Your task to perform on an android device: Go to ESPN.com Image 0: 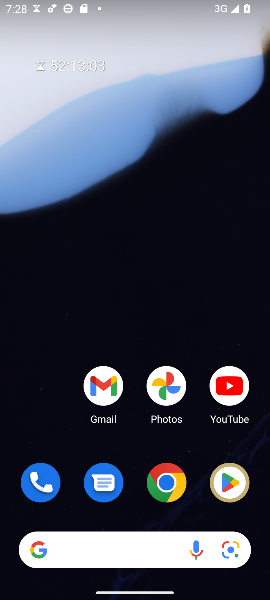
Step 0: drag from (83, 470) to (49, 30)
Your task to perform on an android device: Go to ESPN.com Image 1: 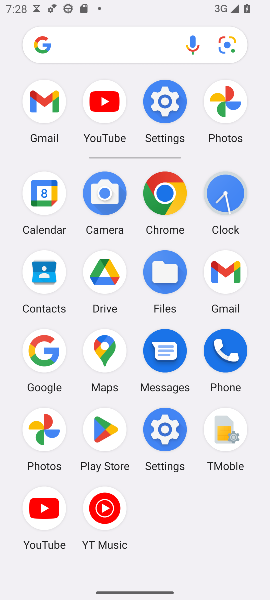
Step 1: click (161, 200)
Your task to perform on an android device: Go to ESPN.com Image 2: 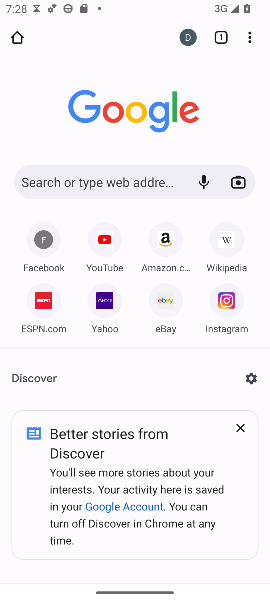
Step 2: click (31, 305)
Your task to perform on an android device: Go to ESPN.com Image 3: 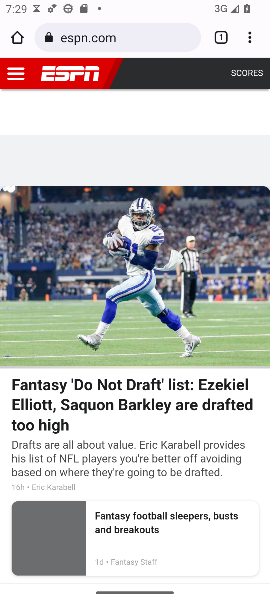
Step 3: task complete